Your task to perform on an android device: Open Amazon Image 0: 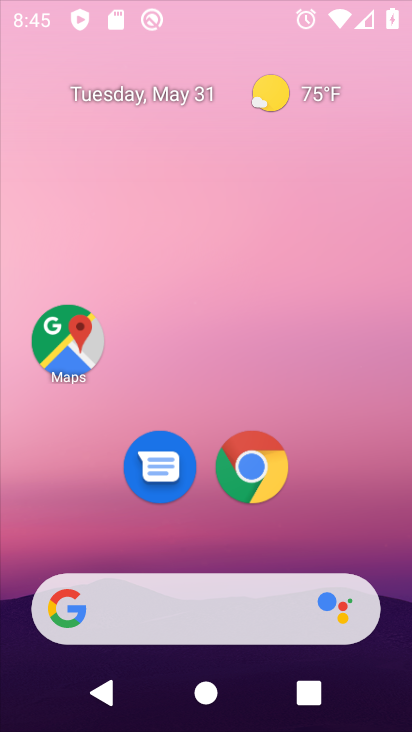
Step 0: drag from (189, 558) to (260, 10)
Your task to perform on an android device: Open Amazon Image 1: 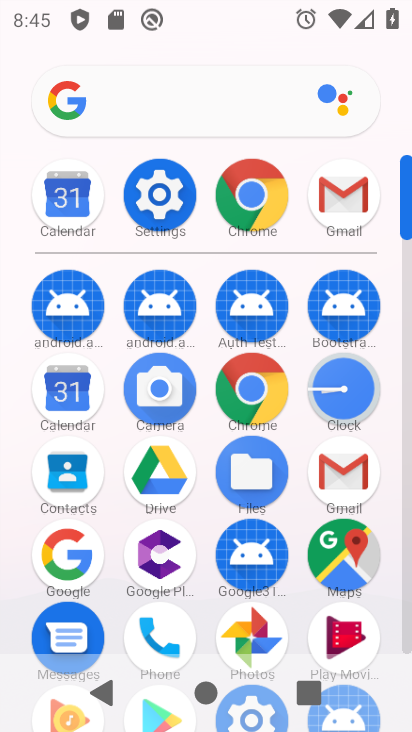
Step 1: click (253, 186)
Your task to perform on an android device: Open Amazon Image 2: 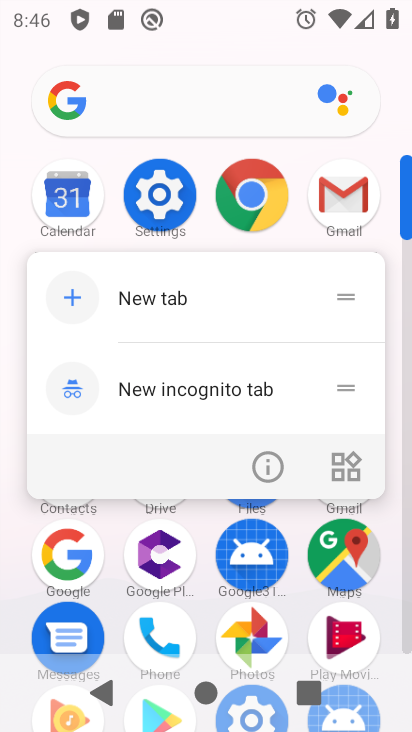
Step 2: click (265, 465)
Your task to perform on an android device: Open Amazon Image 3: 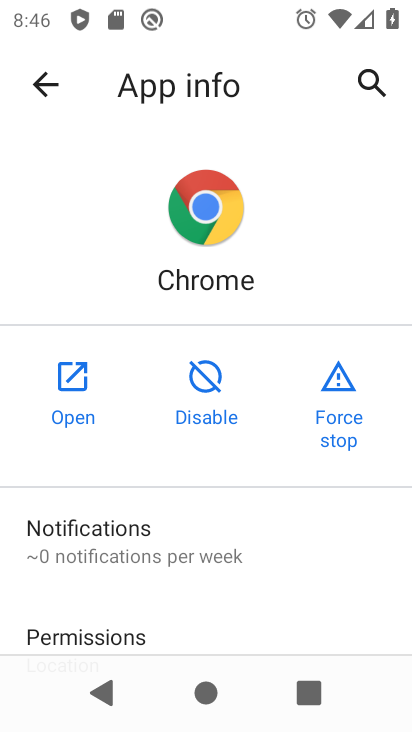
Step 3: click (93, 389)
Your task to perform on an android device: Open Amazon Image 4: 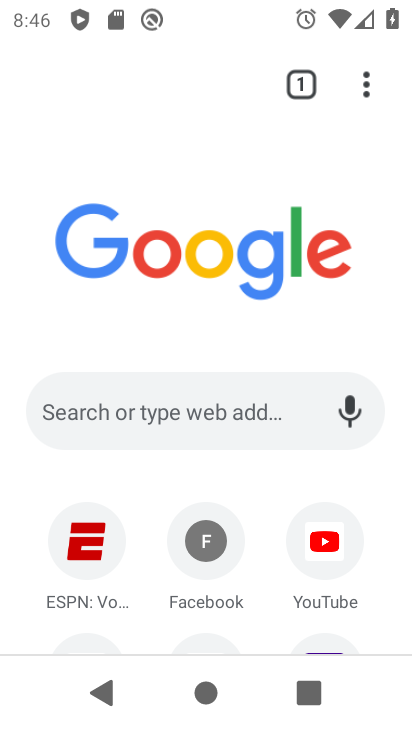
Step 4: drag from (228, 475) to (227, 275)
Your task to perform on an android device: Open Amazon Image 5: 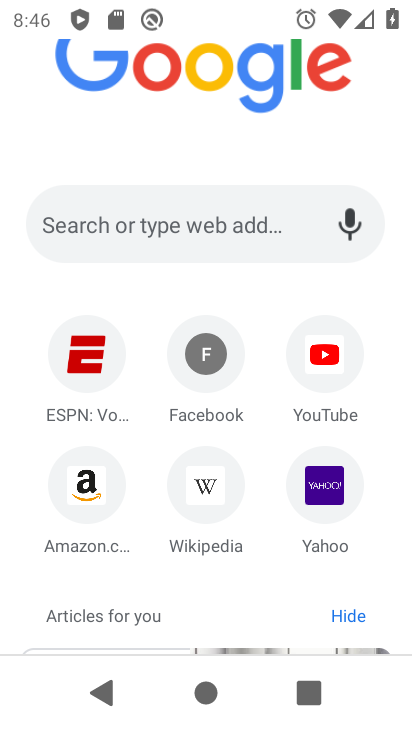
Step 5: click (55, 521)
Your task to perform on an android device: Open Amazon Image 6: 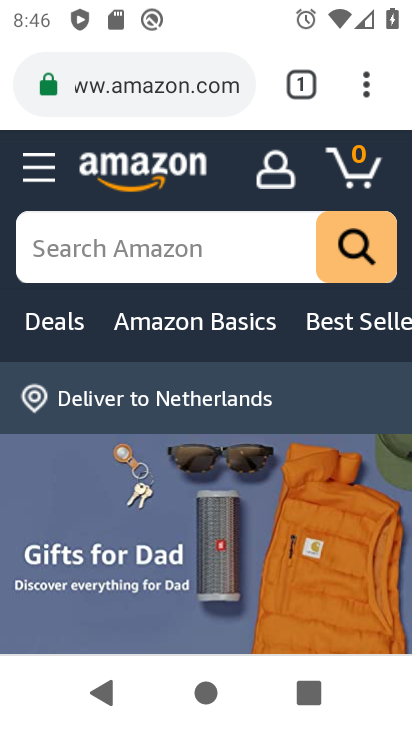
Step 6: task complete